Your task to perform on an android device: Go to wifi settings Image 0: 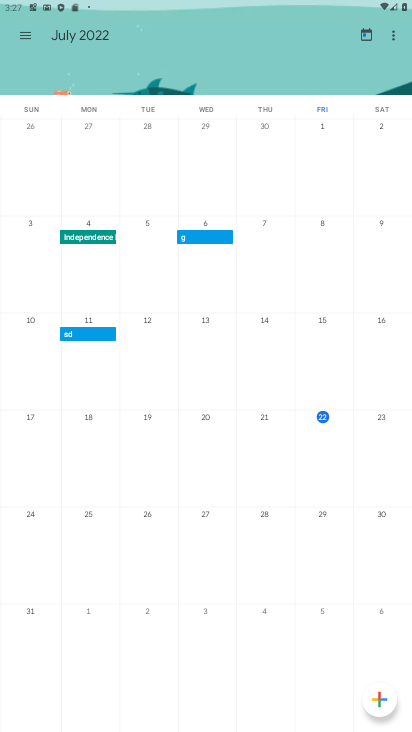
Step 0: drag from (96, 12) to (146, 650)
Your task to perform on an android device: Go to wifi settings Image 1: 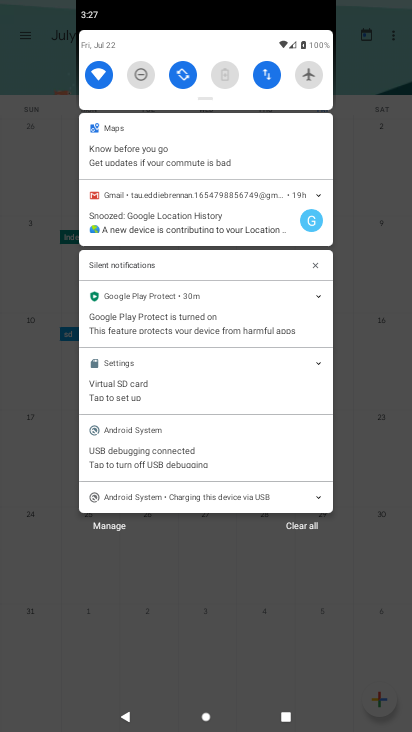
Step 1: click (97, 82)
Your task to perform on an android device: Go to wifi settings Image 2: 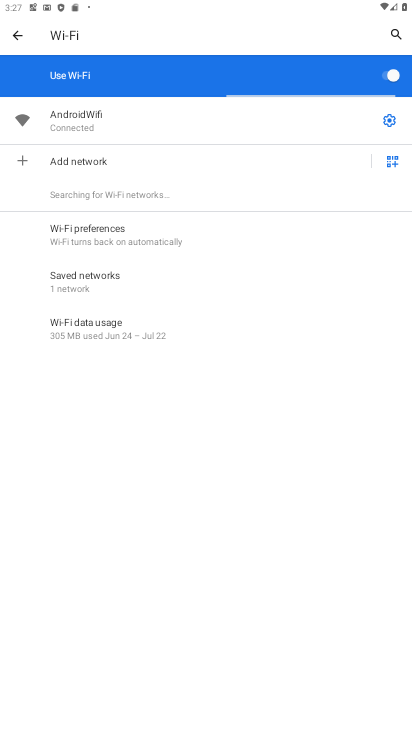
Step 2: task complete